Your task to perform on an android device: turn on data saver in the chrome app Image 0: 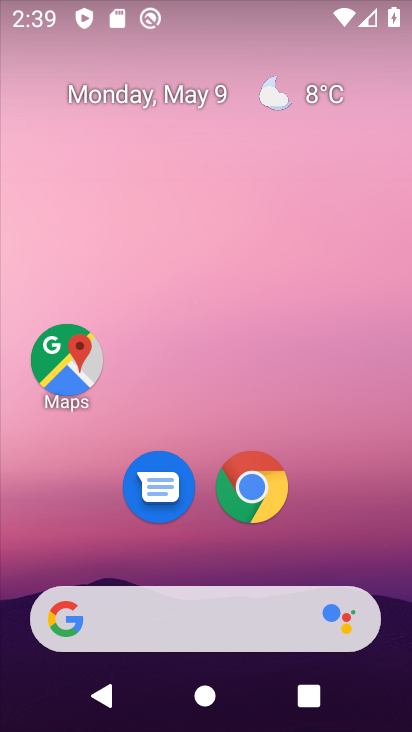
Step 0: click (257, 486)
Your task to perform on an android device: turn on data saver in the chrome app Image 1: 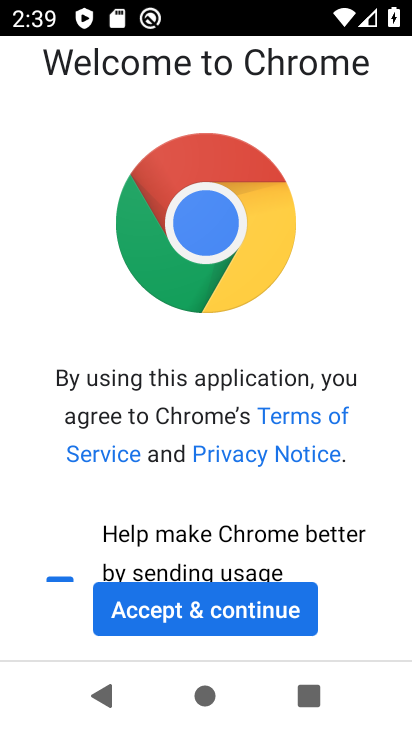
Step 1: click (199, 603)
Your task to perform on an android device: turn on data saver in the chrome app Image 2: 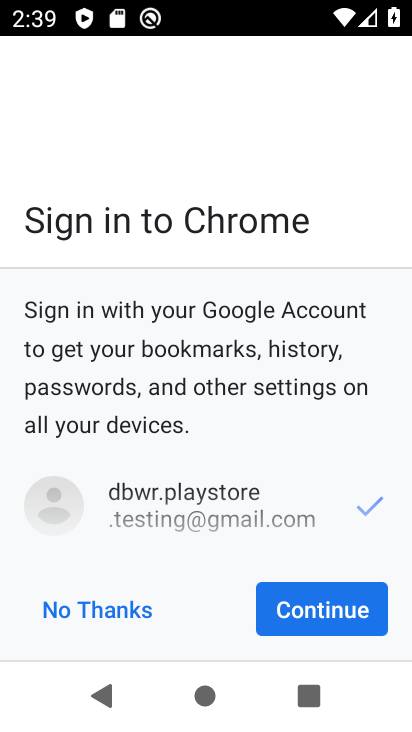
Step 2: click (330, 610)
Your task to perform on an android device: turn on data saver in the chrome app Image 3: 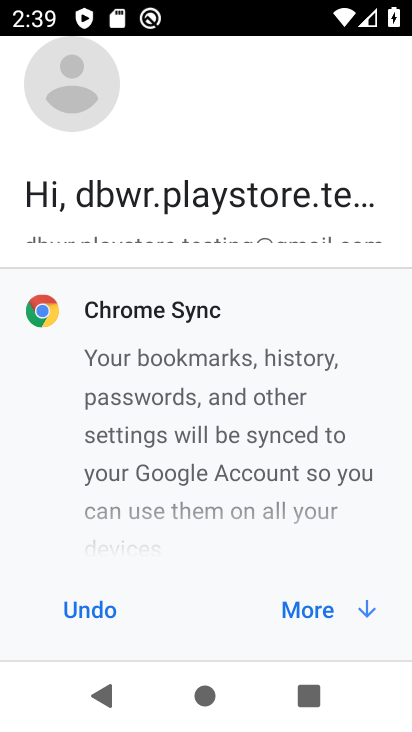
Step 3: click (330, 610)
Your task to perform on an android device: turn on data saver in the chrome app Image 4: 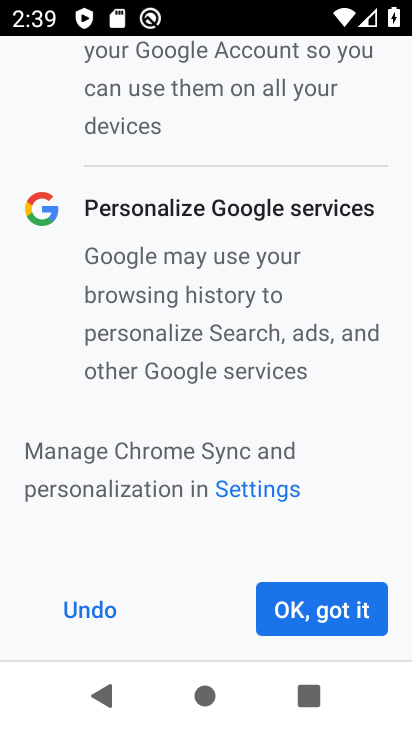
Step 4: click (330, 610)
Your task to perform on an android device: turn on data saver in the chrome app Image 5: 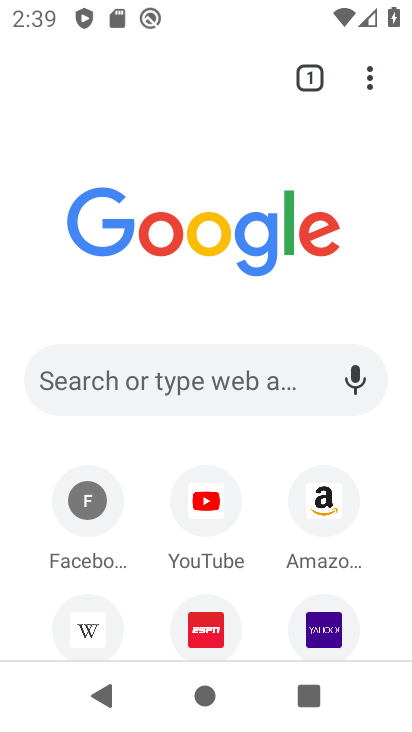
Step 5: click (365, 81)
Your task to perform on an android device: turn on data saver in the chrome app Image 6: 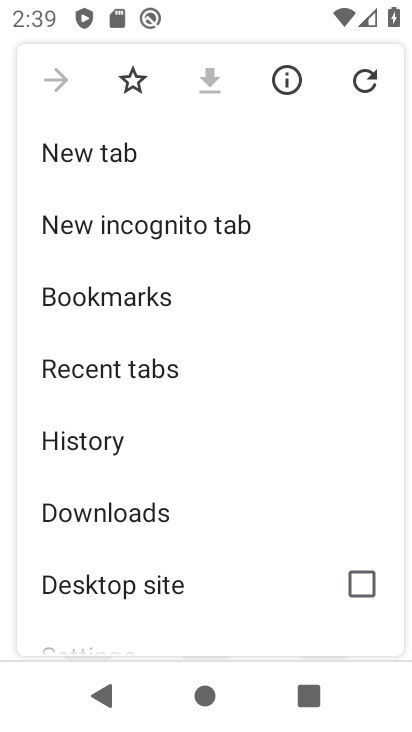
Step 6: drag from (197, 573) to (199, 94)
Your task to perform on an android device: turn on data saver in the chrome app Image 7: 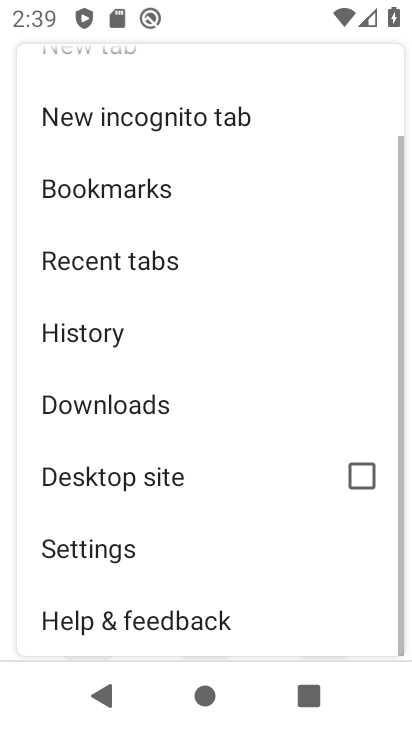
Step 7: click (144, 553)
Your task to perform on an android device: turn on data saver in the chrome app Image 8: 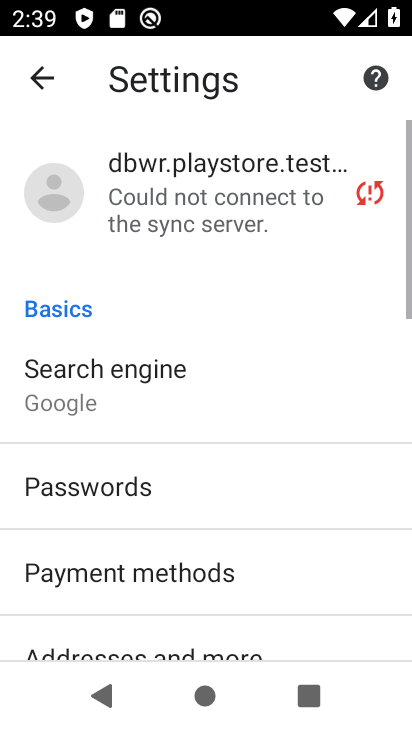
Step 8: drag from (188, 607) to (190, 168)
Your task to perform on an android device: turn on data saver in the chrome app Image 9: 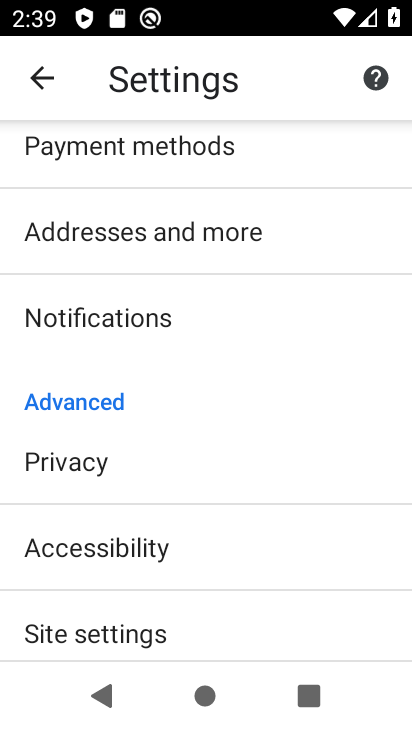
Step 9: drag from (166, 610) to (175, 204)
Your task to perform on an android device: turn on data saver in the chrome app Image 10: 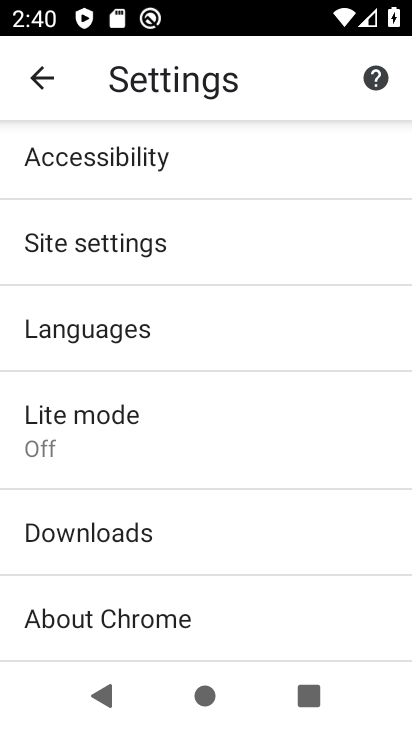
Step 10: click (81, 437)
Your task to perform on an android device: turn on data saver in the chrome app Image 11: 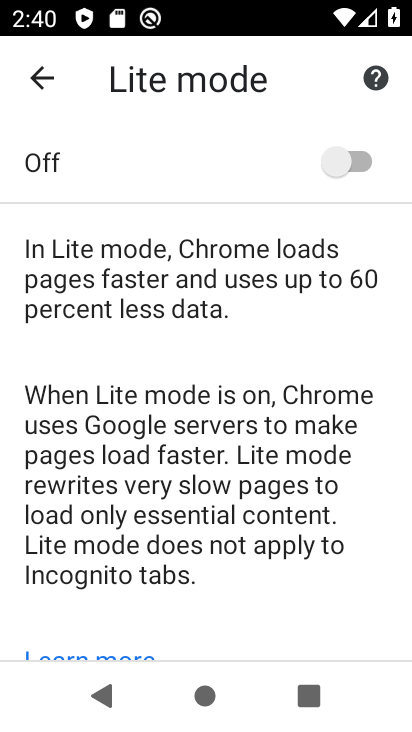
Step 11: click (346, 154)
Your task to perform on an android device: turn on data saver in the chrome app Image 12: 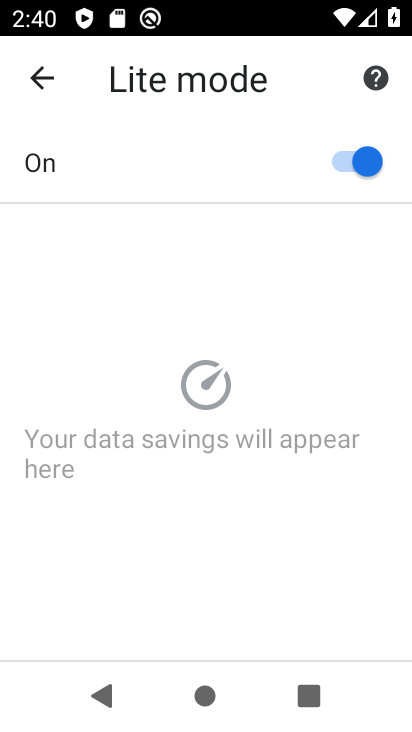
Step 12: task complete